Your task to perform on an android device: allow cookies in the chrome app Image 0: 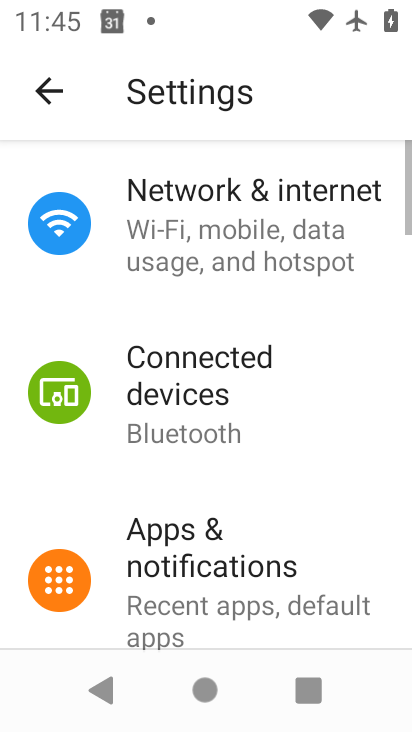
Step 0: press home button
Your task to perform on an android device: allow cookies in the chrome app Image 1: 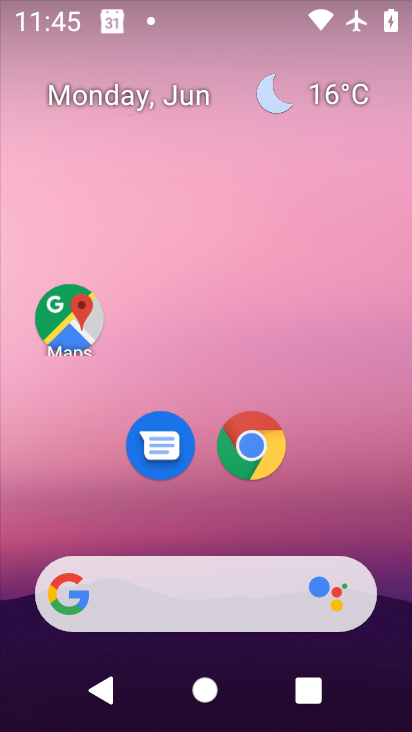
Step 1: click (235, 432)
Your task to perform on an android device: allow cookies in the chrome app Image 2: 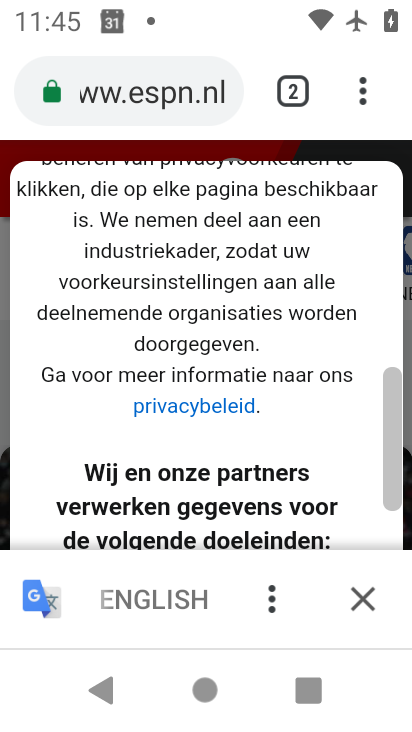
Step 2: drag from (358, 89) to (274, 484)
Your task to perform on an android device: allow cookies in the chrome app Image 3: 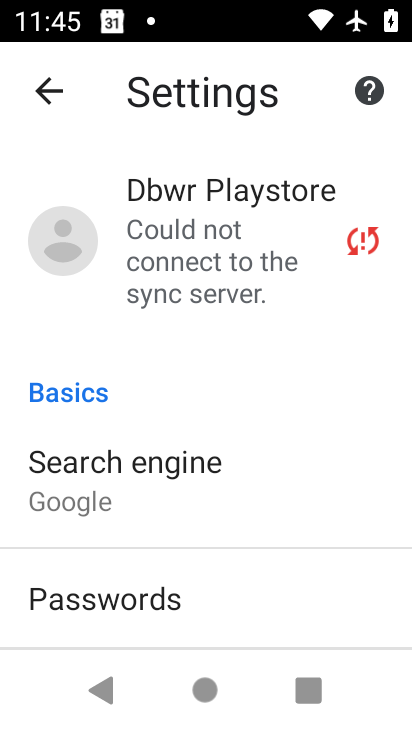
Step 3: drag from (335, 512) to (283, 67)
Your task to perform on an android device: allow cookies in the chrome app Image 4: 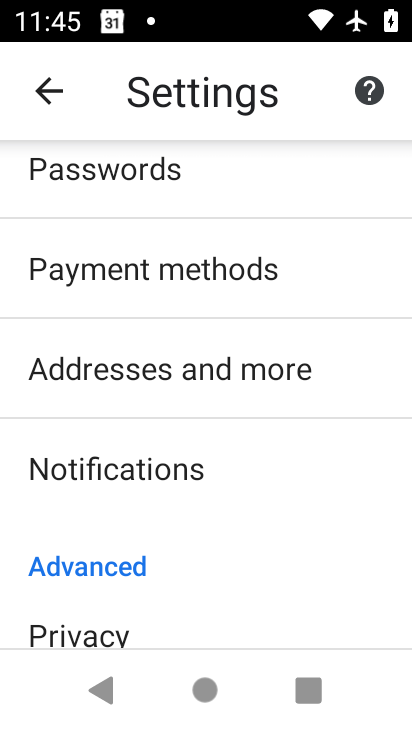
Step 4: drag from (259, 616) to (286, 200)
Your task to perform on an android device: allow cookies in the chrome app Image 5: 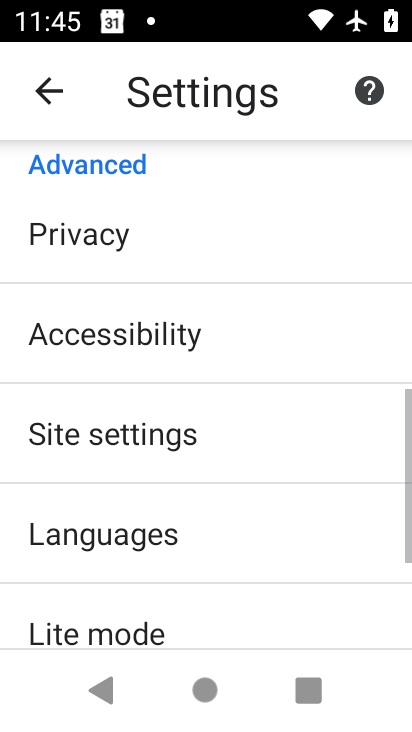
Step 5: click (138, 447)
Your task to perform on an android device: allow cookies in the chrome app Image 6: 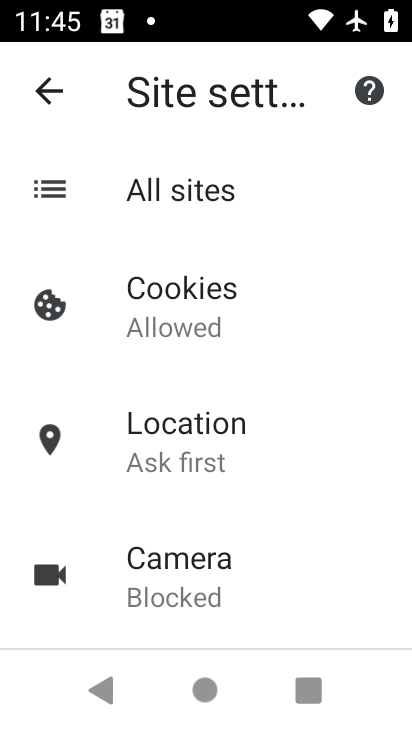
Step 6: click (252, 291)
Your task to perform on an android device: allow cookies in the chrome app Image 7: 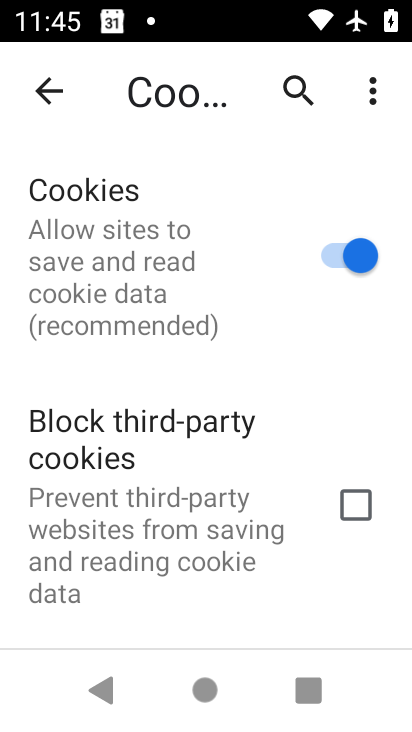
Step 7: task complete